Your task to perform on an android device: Open the contacts Image 0: 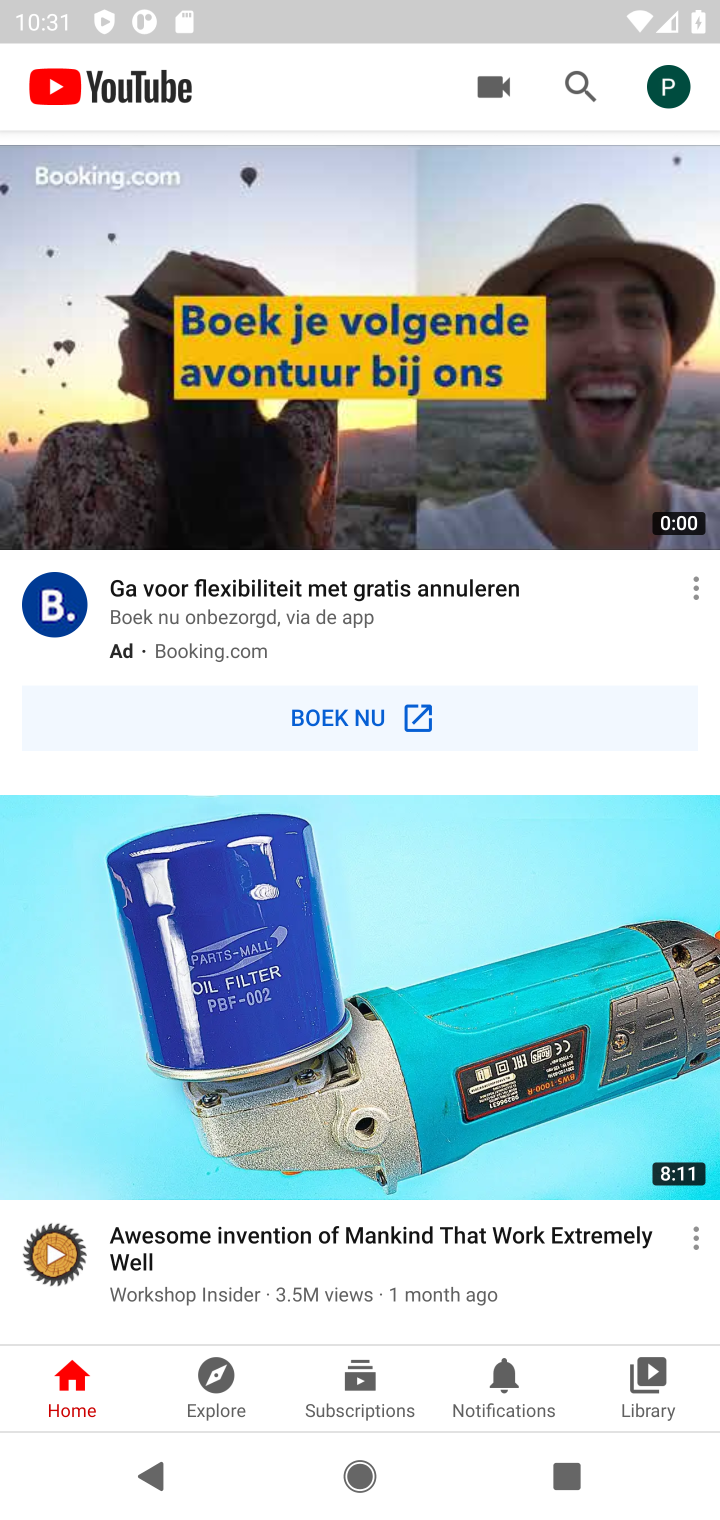
Step 0: press home button
Your task to perform on an android device: Open the contacts Image 1: 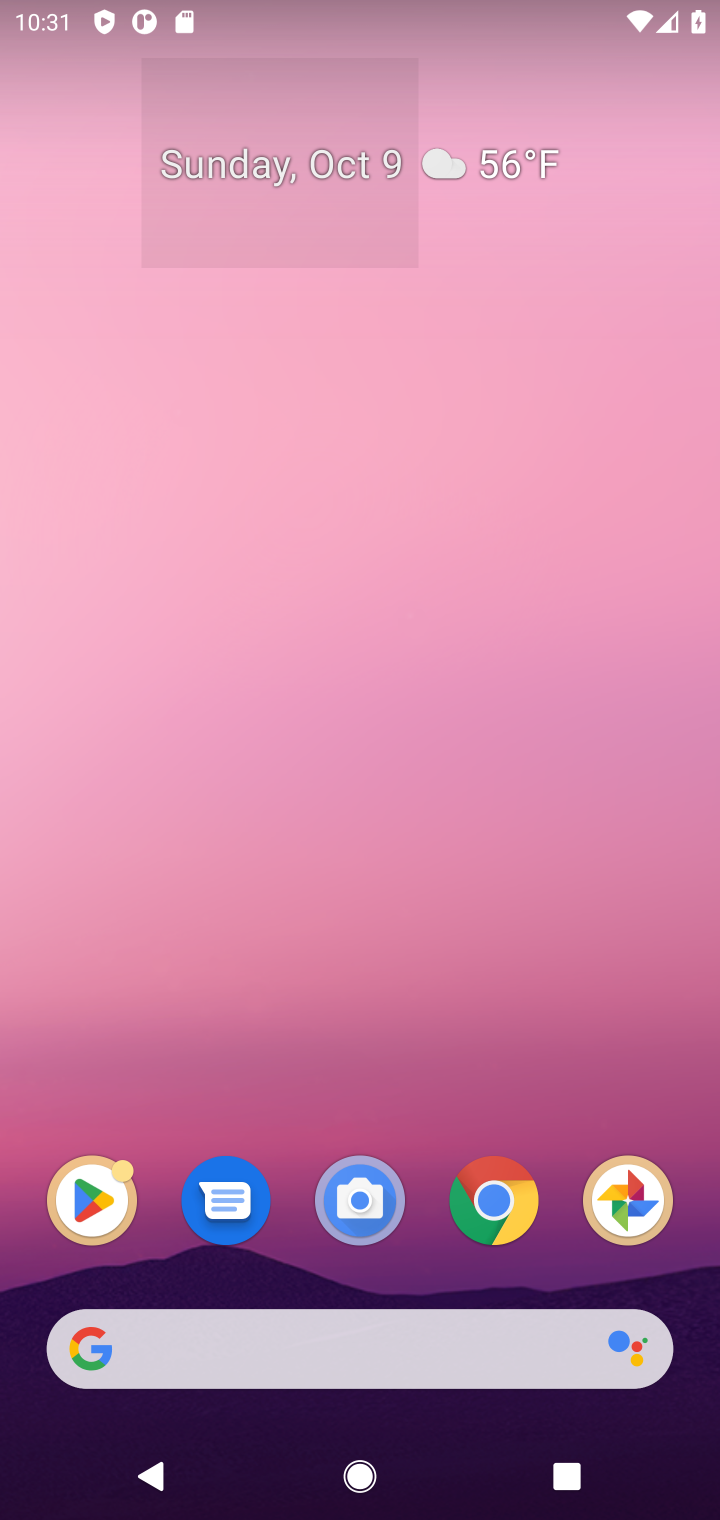
Step 1: drag from (370, 1370) to (115, 211)
Your task to perform on an android device: Open the contacts Image 2: 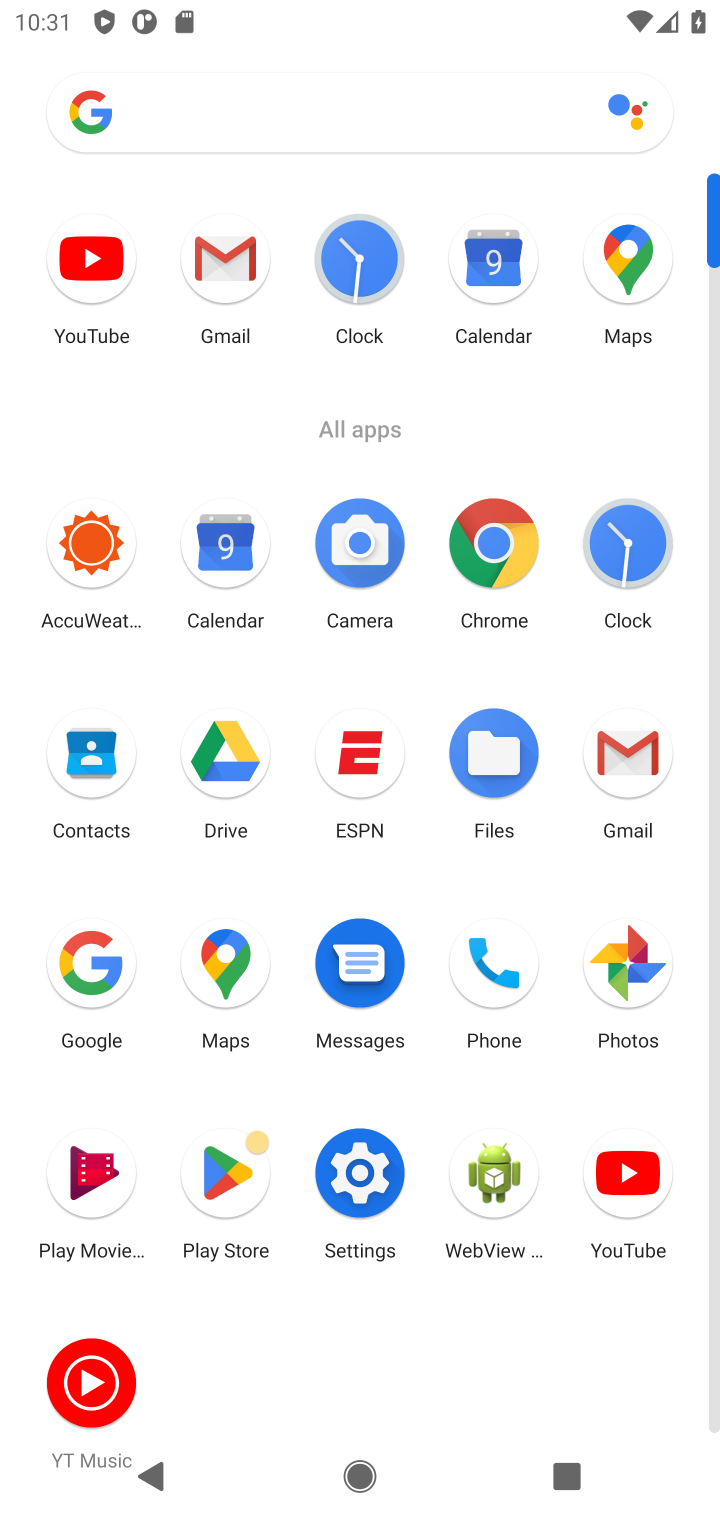
Step 2: click (109, 760)
Your task to perform on an android device: Open the contacts Image 3: 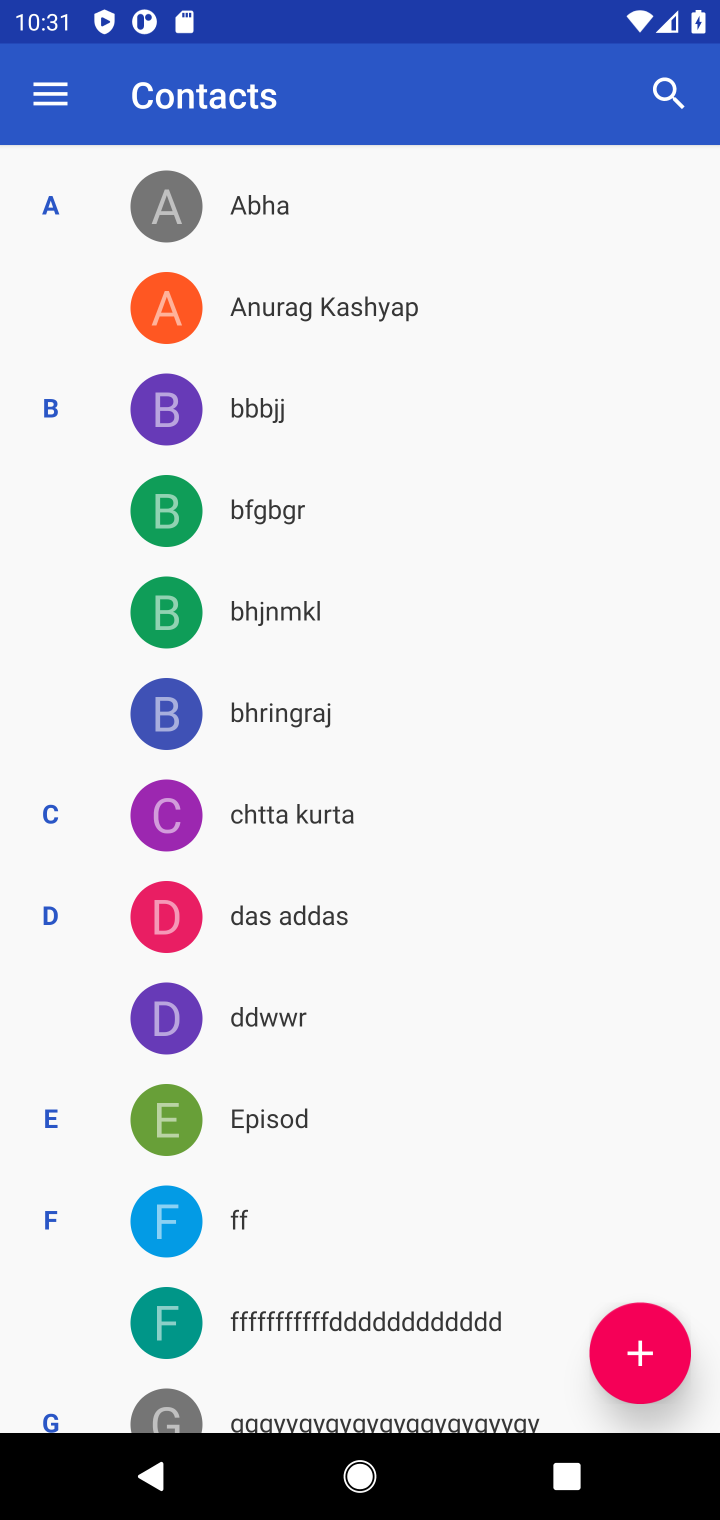
Step 3: task complete